Your task to perform on an android device: toggle notifications settings in the gmail app Image 0: 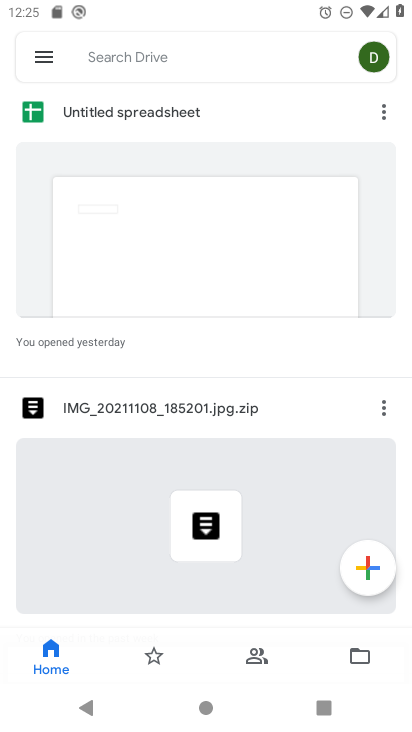
Step 0: press home button
Your task to perform on an android device: toggle notifications settings in the gmail app Image 1: 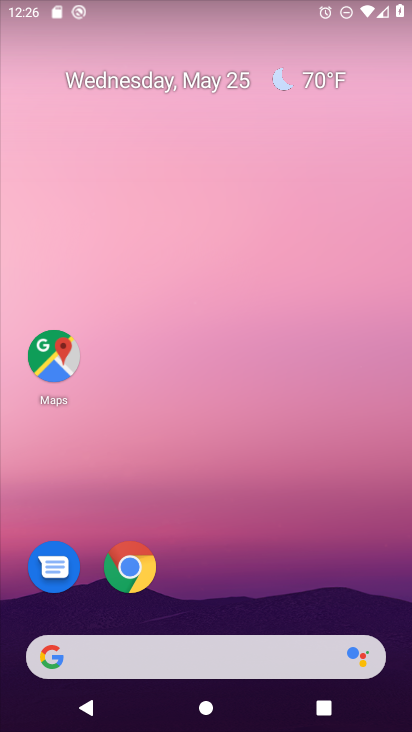
Step 1: drag from (394, 616) to (381, 256)
Your task to perform on an android device: toggle notifications settings in the gmail app Image 2: 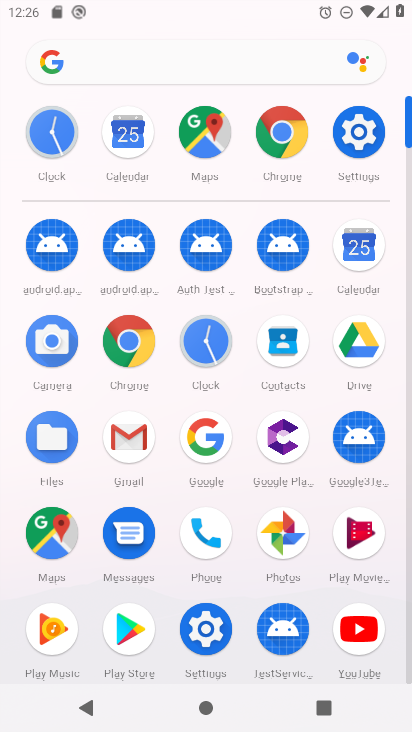
Step 2: click (129, 434)
Your task to perform on an android device: toggle notifications settings in the gmail app Image 3: 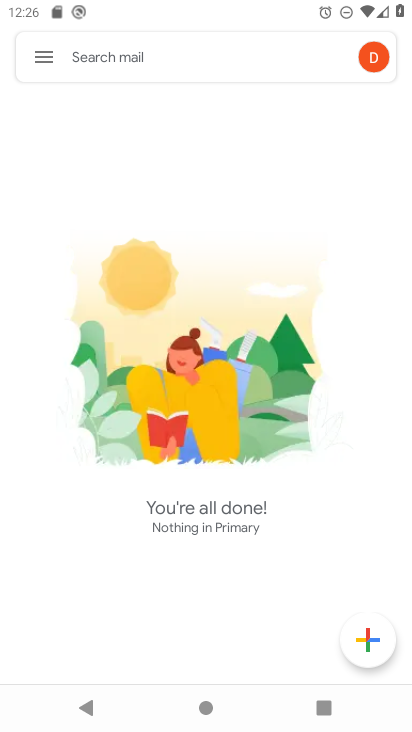
Step 3: click (46, 47)
Your task to perform on an android device: toggle notifications settings in the gmail app Image 4: 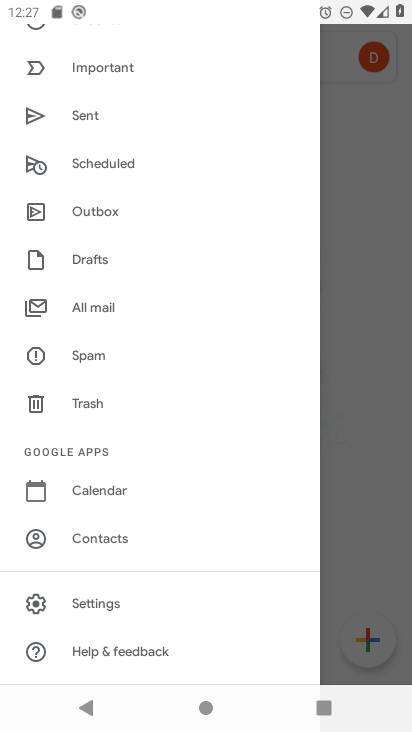
Step 4: click (103, 605)
Your task to perform on an android device: toggle notifications settings in the gmail app Image 5: 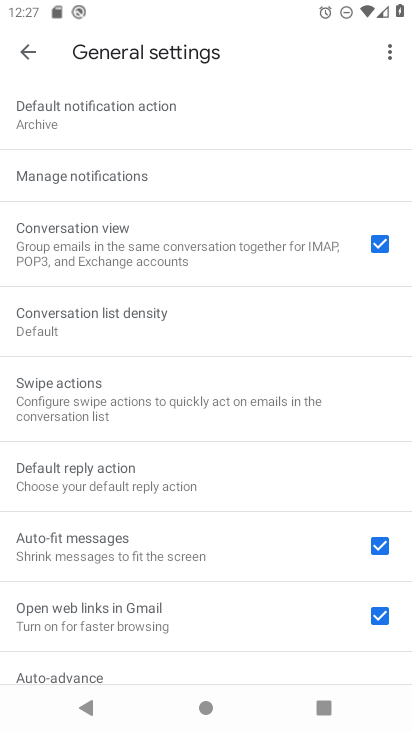
Step 5: click (59, 167)
Your task to perform on an android device: toggle notifications settings in the gmail app Image 6: 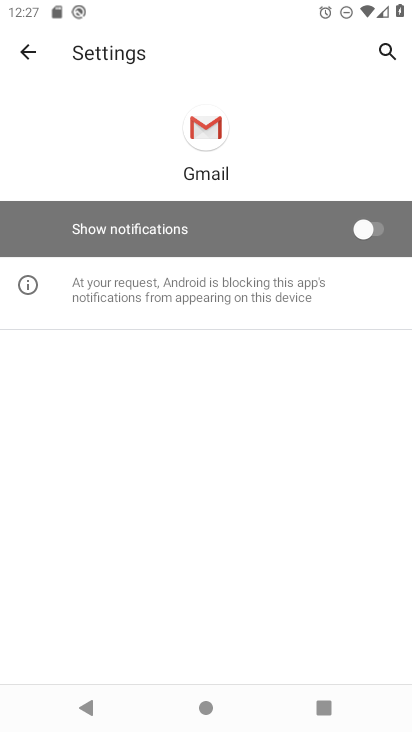
Step 6: click (378, 239)
Your task to perform on an android device: toggle notifications settings in the gmail app Image 7: 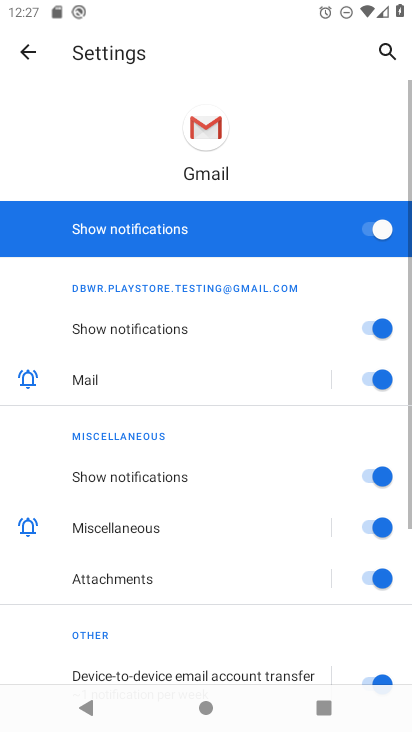
Step 7: task complete